Your task to perform on an android device: turn off smart reply in the gmail app Image 0: 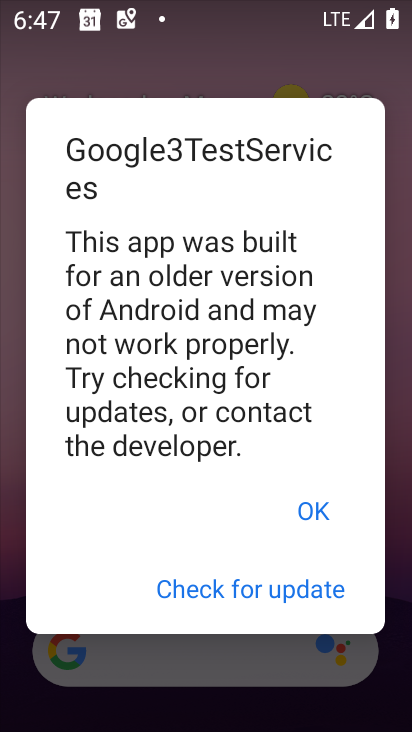
Step 0: press home button
Your task to perform on an android device: turn off smart reply in the gmail app Image 1: 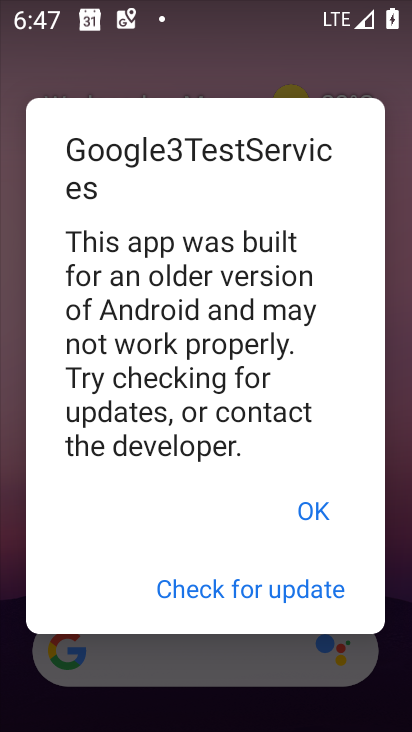
Step 1: press home button
Your task to perform on an android device: turn off smart reply in the gmail app Image 2: 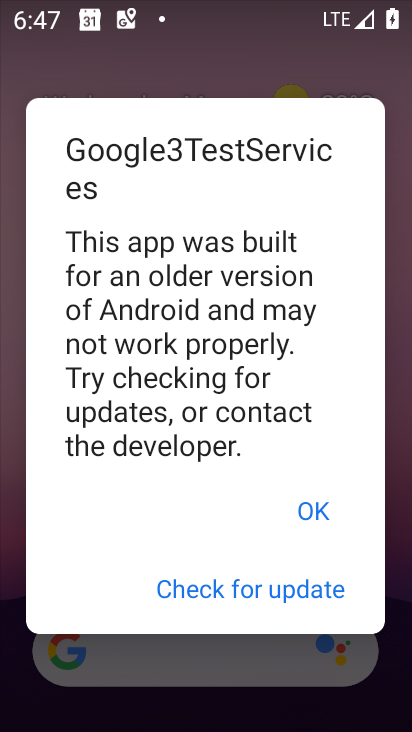
Step 2: click (319, 499)
Your task to perform on an android device: turn off smart reply in the gmail app Image 3: 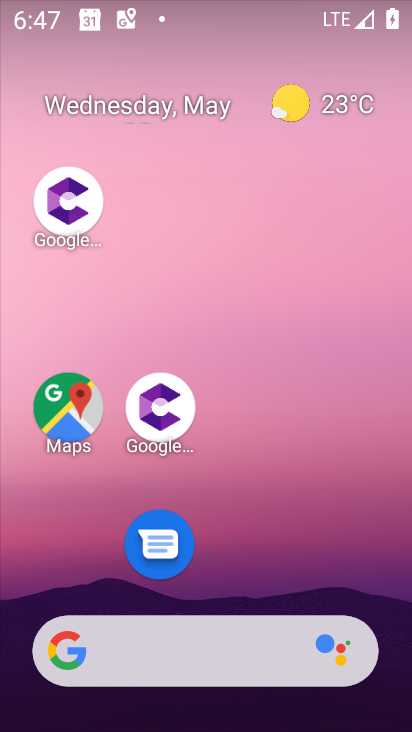
Step 3: drag from (261, 546) to (198, 10)
Your task to perform on an android device: turn off smart reply in the gmail app Image 4: 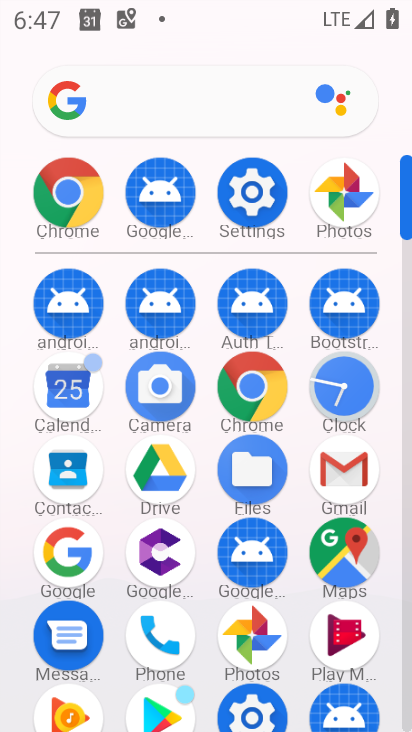
Step 4: click (346, 462)
Your task to perform on an android device: turn off smart reply in the gmail app Image 5: 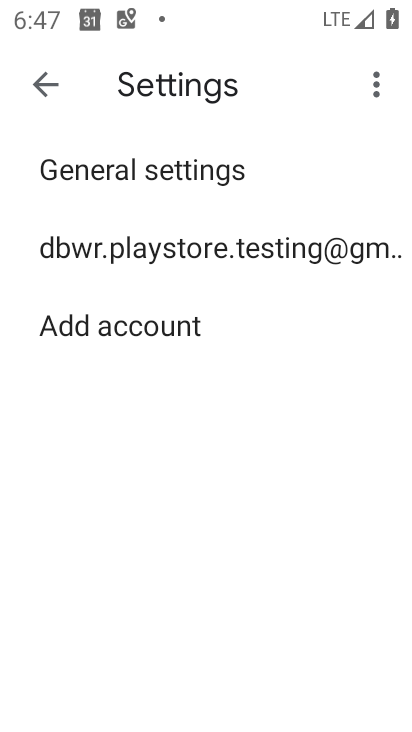
Step 5: click (101, 244)
Your task to perform on an android device: turn off smart reply in the gmail app Image 6: 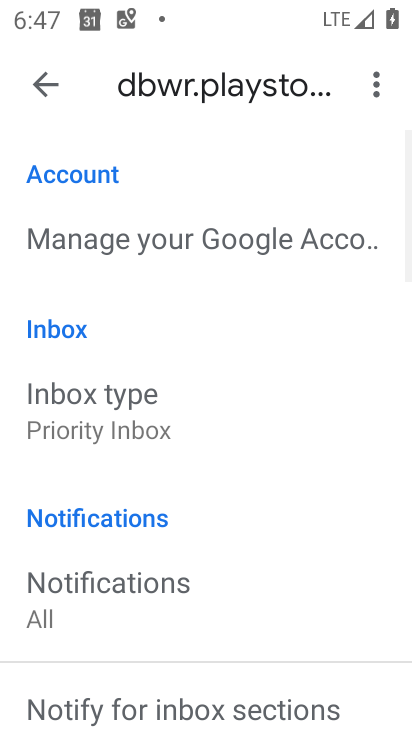
Step 6: drag from (199, 507) to (168, 67)
Your task to perform on an android device: turn off smart reply in the gmail app Image 7: 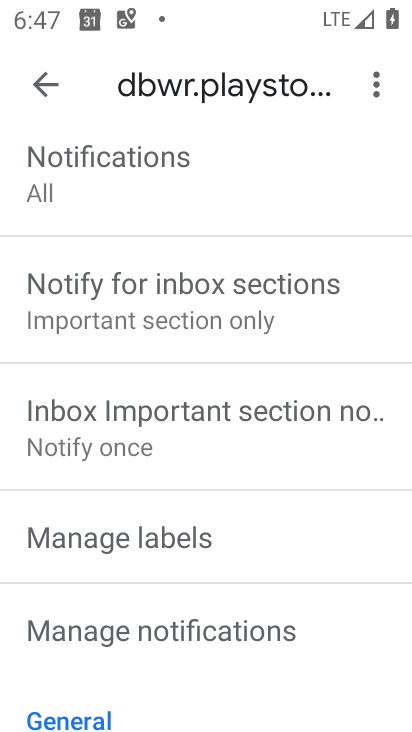
Step 7: drag from (248, 502) to (225, 164)
Your task to perform on an android device: turn off smart reply in the gmail app Image 8: 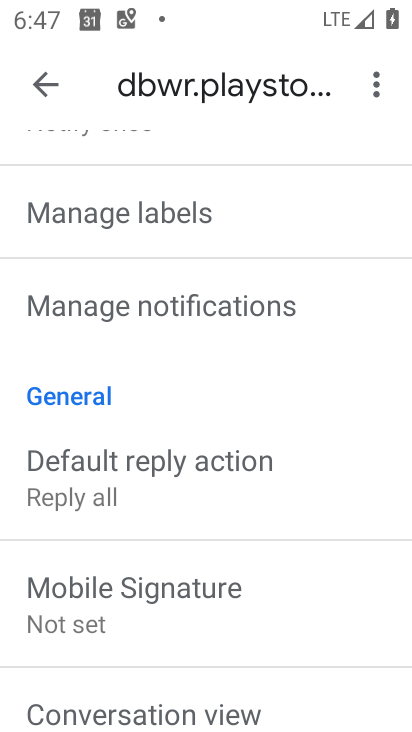
Step 8: drag from (232, 485) to (232, 197)
Your task to perform on an android device: turn off smart reply in the gmail app Image 9: 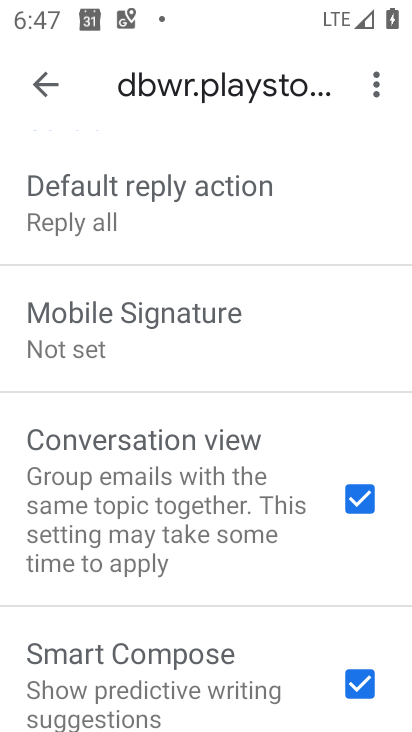
Step 9: drag from (219, 543) to (208, 289)
Your task to perform on an android device: turn off smart reply in the gmail app Image 10: 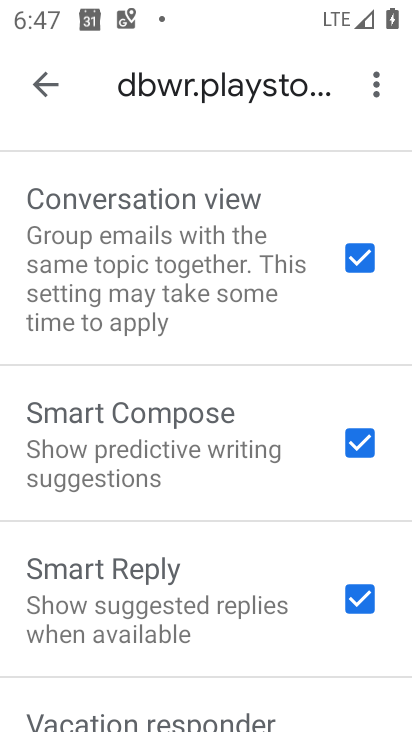
Step 10: click (352, 598)
Your task to perform on an android device: turn off smart reply in the gmail app Image 11: 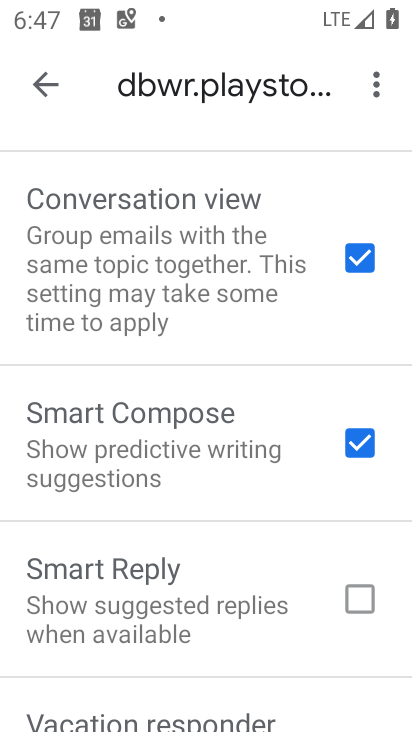
Step 11: task complete